Your task to perform on an android device: Open Chrome and go to the settings page Image 0: 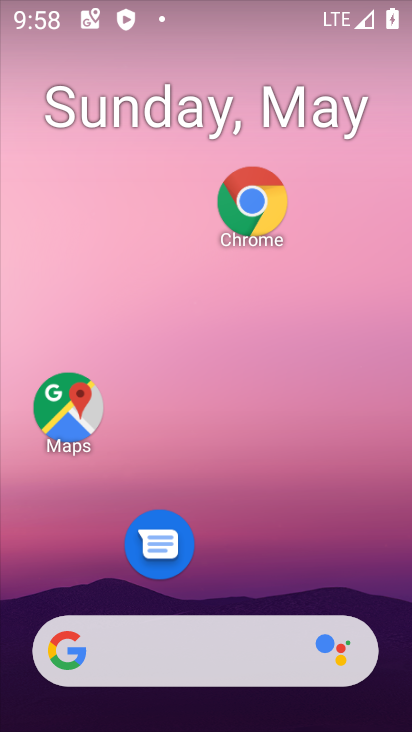
Step 0: click (255, 214)
Your task to perform on an android device: Open Chrome and go to the settings page Image 1: 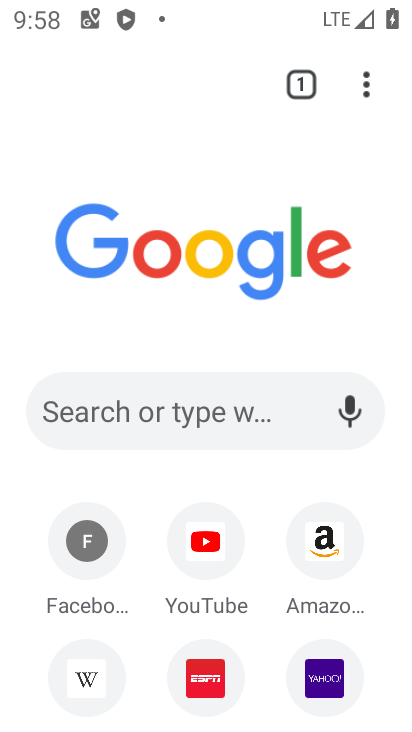
Step 1: click (358, 88)
Your task to perform on an android device: Open Chrome and go to the settings page Image 2: 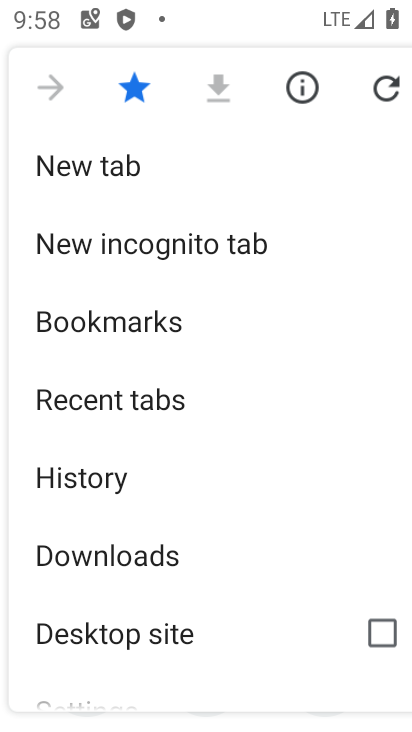
Step 2: click (85, 698)
Your task to perform on an android device: Open Chrome and go to the settings page Image 3: 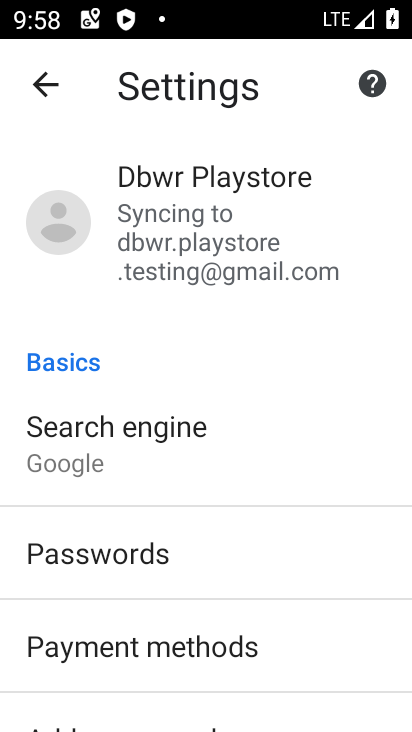
Step 3: task complete